Your task to perform on an android device: Open maps Image 0: 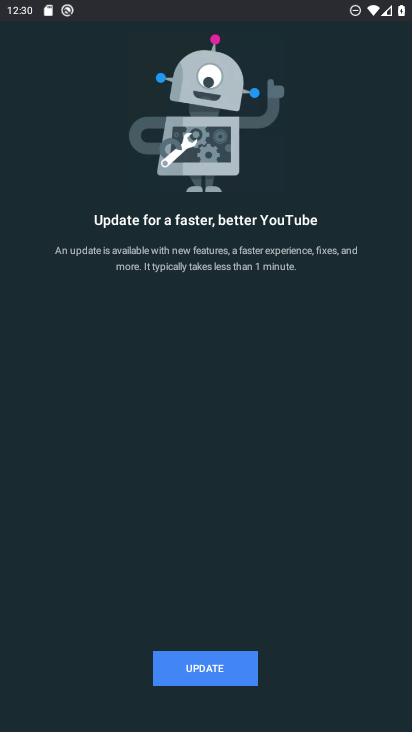
Step 0: press home button
Your task to perform on an android device: Open maps Image 1: 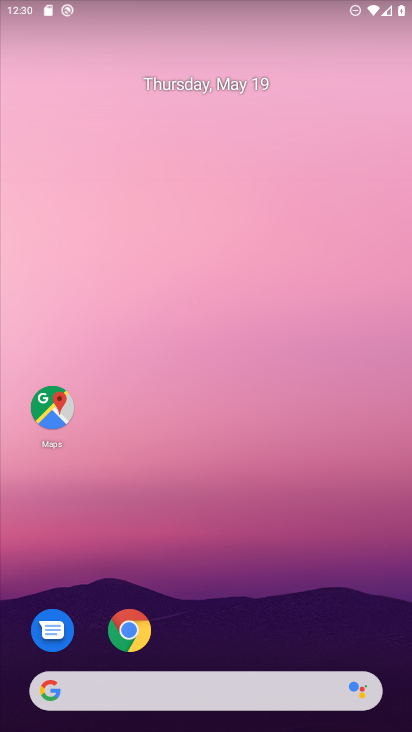
Step 1: click (45, 406)
Your task to perform on an android device: Open maps Image 2: 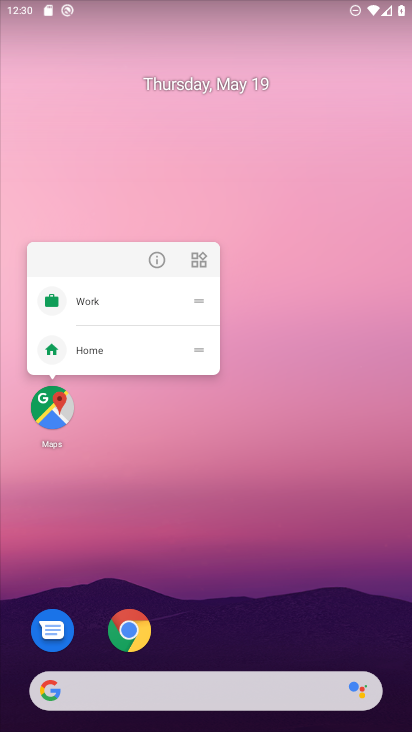
Step 2: click (147, 259)
Your task to perform on an android device: Open maps Image 3: 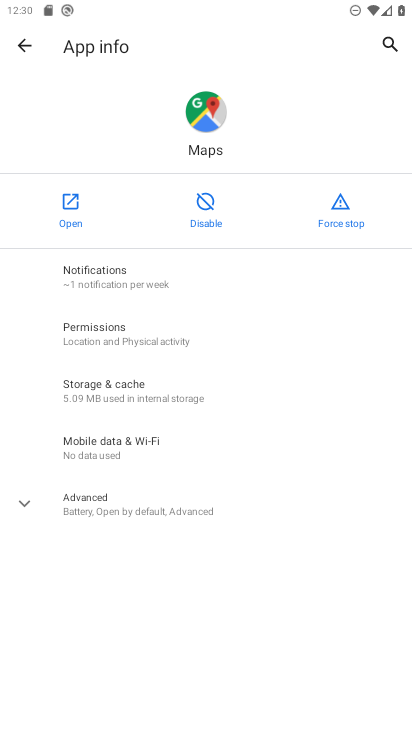
Step 3: click (80, 208)
Your task to perform on an android device: Open maps Image 4: 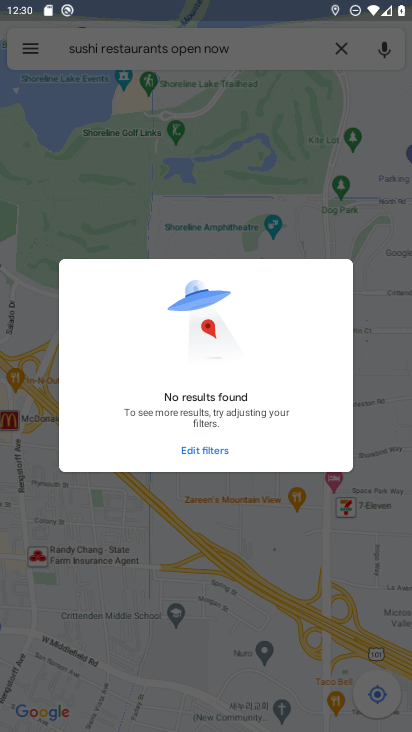
Step 4: task complete